Your task to perform on an android device: change the clock style Image 0: 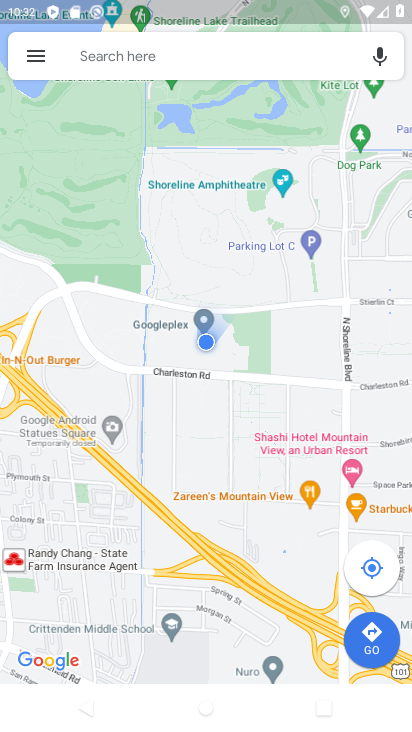
Step 0: press home button
Your task to perform on an android device: change the clock style Image 1: 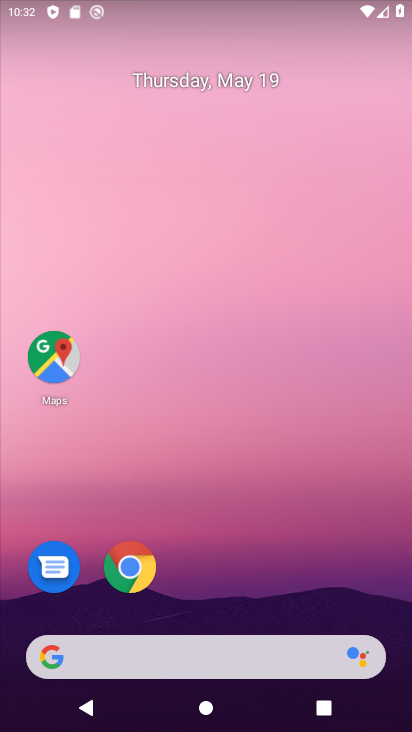
Step 1: drag from (401, 636) to (292, 0)
Your task to perform on an android device: change the clock style Image 2: 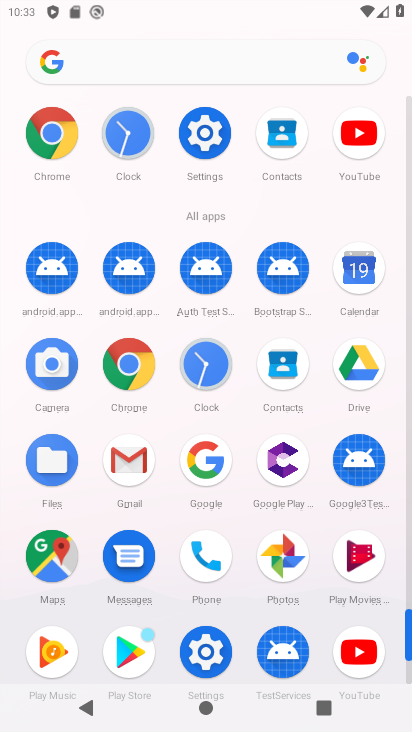
Step 2: click (204, 360)
Your task to perform on an android device: change the clock style Image 3: 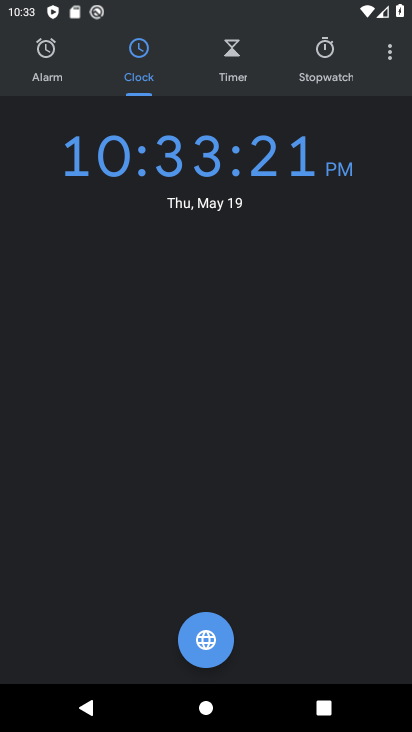
Step 3: click (386, 60)
Your task to perform on an android device: change the clock style Image 4: 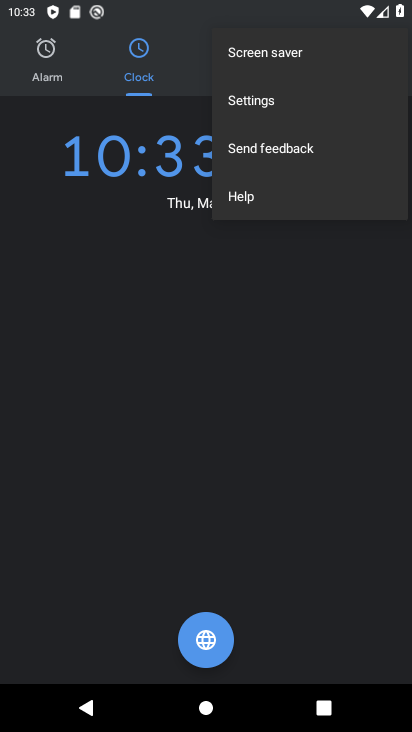
Step 4: click (262, 101)
Your task to perform on an android device: change the clock style Image 5: 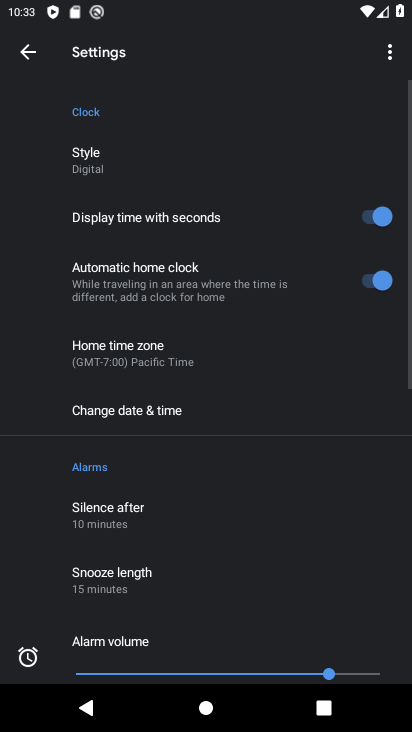
Step 5: click (102, 166)
Your task to perform on an android device: change the clock style Image 6: 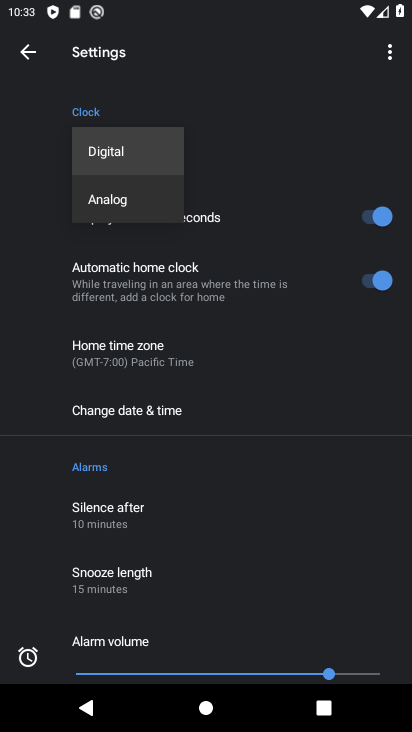
Step 6: click (121, 203)
Your task to perform on an android device: change the clock style Image 7: 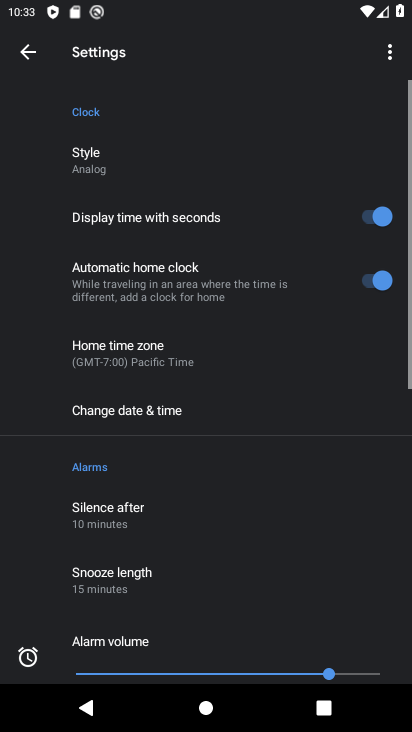
Step 7: task complete